Your task to perform on an android device: add a label to a message in the gmail app Image 0: 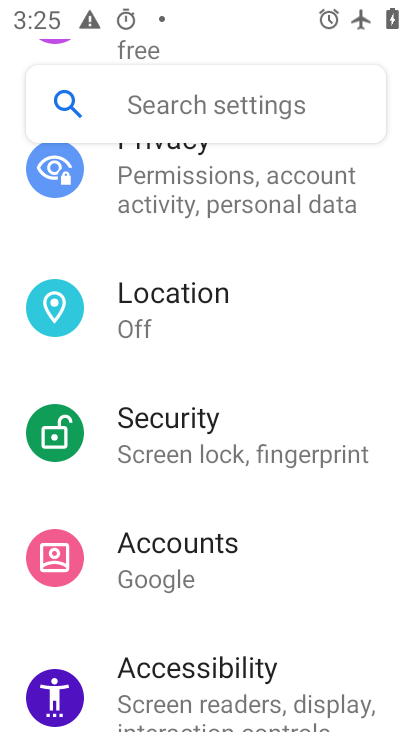
Step 0: press home button
Your task to perform on an android device: add a label to a message in the gmail app Image 1: 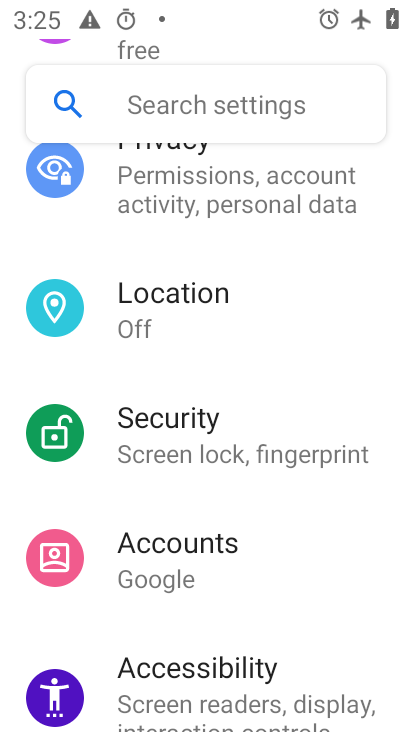
Step 1: press home button
Your task to perform on an android device: add a label to a message in the gmail app Image 2: 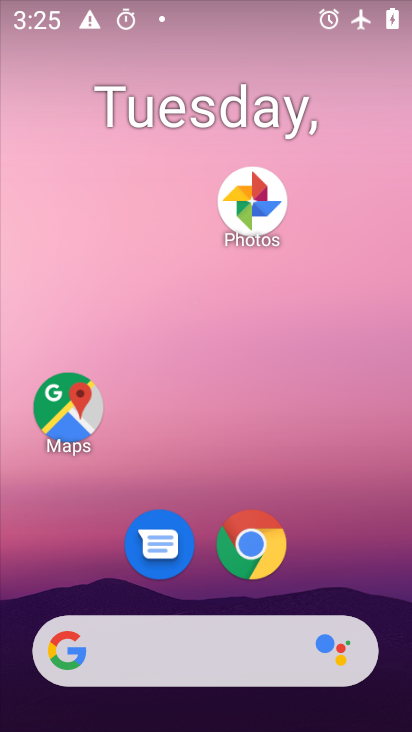
Step 2: drag from (337, 457) to (277, 23)
Your task to perform on an android device: add a label to a message in the gmail app Image 3: 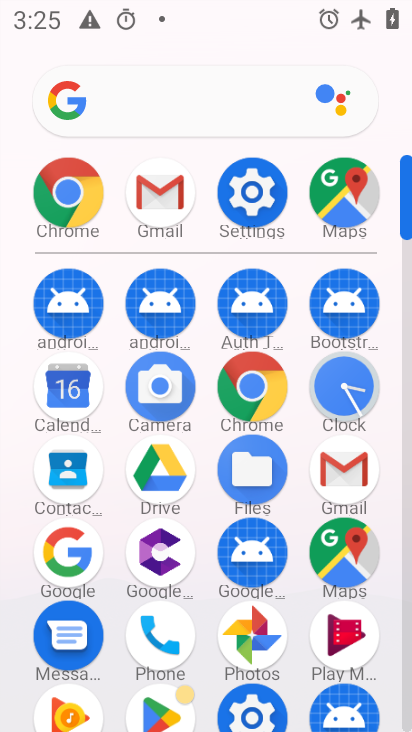
Step 3: click (342, 474)
Your task to perform on an android device: add a label to a message in the gmail app Image 4: 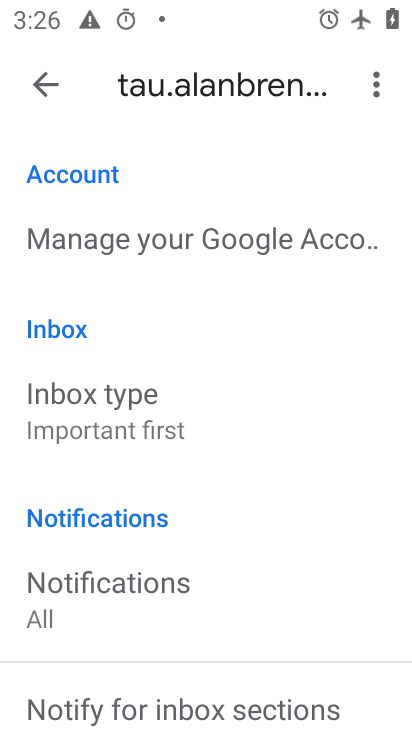
Step 4: task complete